Your task to perform on an android device: Go to Wikipedia Image 0: 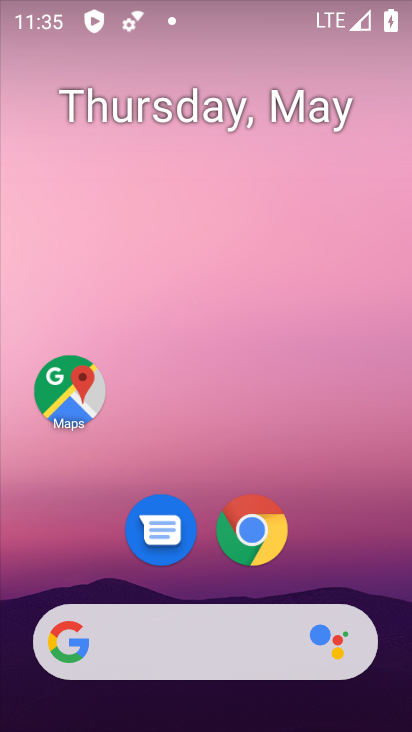
Step 0: click (174, 647)
Your task to perform on an android device: Go to Wikipedia Image 1: 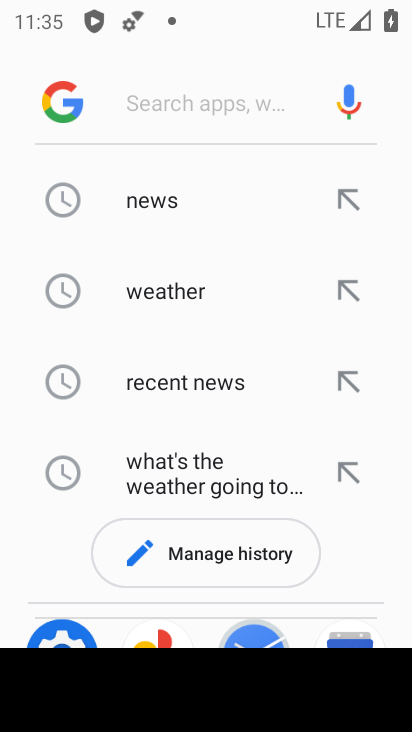
Step 1: type "wikipedia"
Your task to perform on an android device: Go to Wikipedia Image 2: 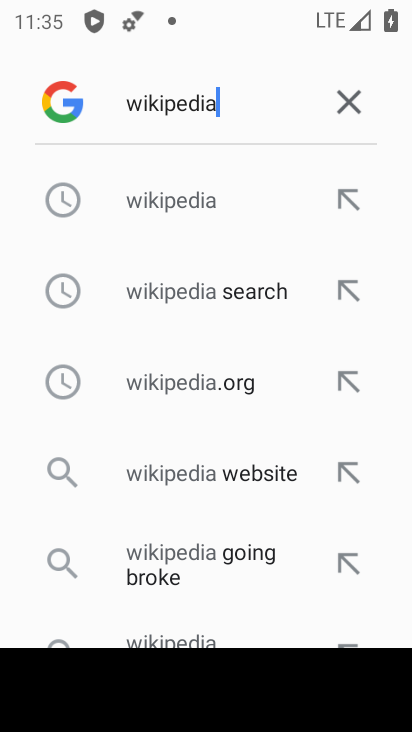
Step 2: click (137, 194)
Your task to perform on an android device: Go to Wikipedia Image 3: 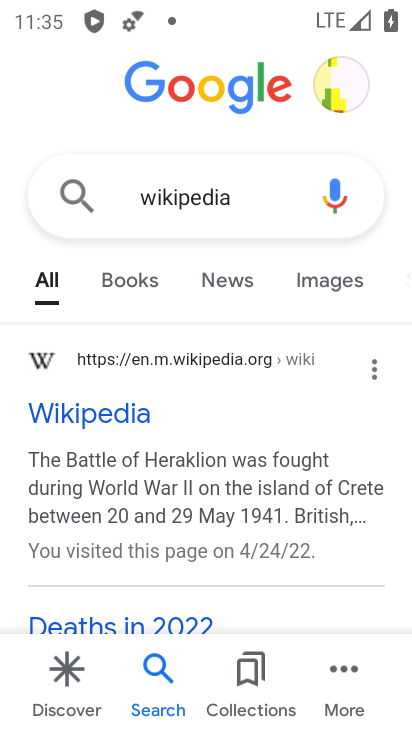
Step 3: click (85, 420)
Your task to perform on an android device: Go to Wikipedia Image 4: 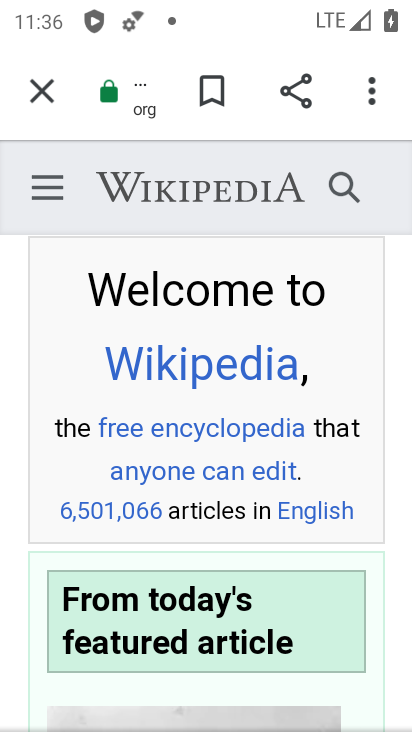
Step 4: task complete